Your task to perform on an android device: all mails in gmail Image 0: 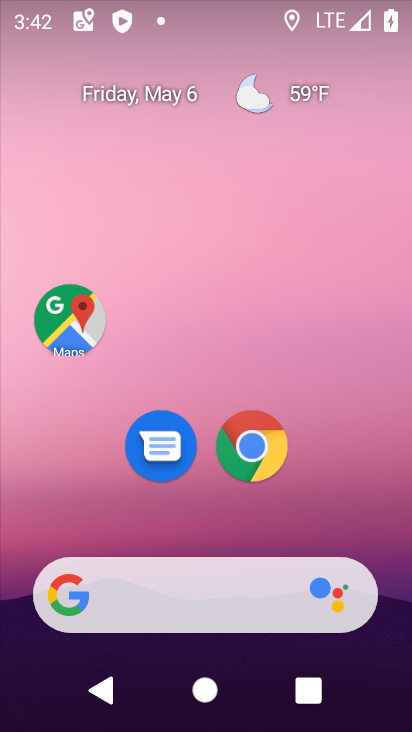
Step 0: drag from (332, 521) to (334, 236)
Your task to perform on an android device: all mails in gmail Image 1: 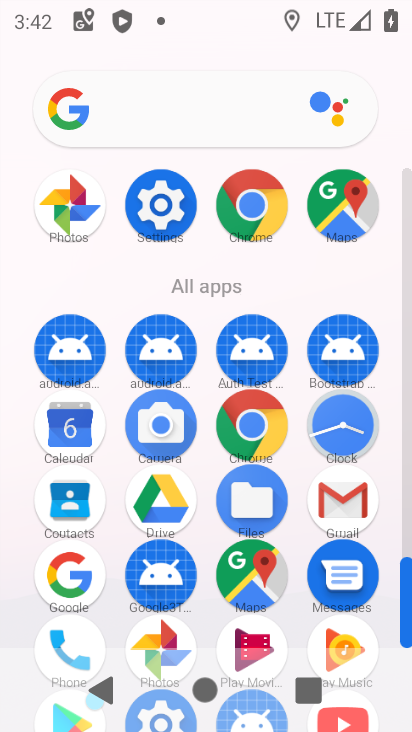
Step 1: click (336, 480)
Your task to perform on an android device: all mails in gmail Image 2: 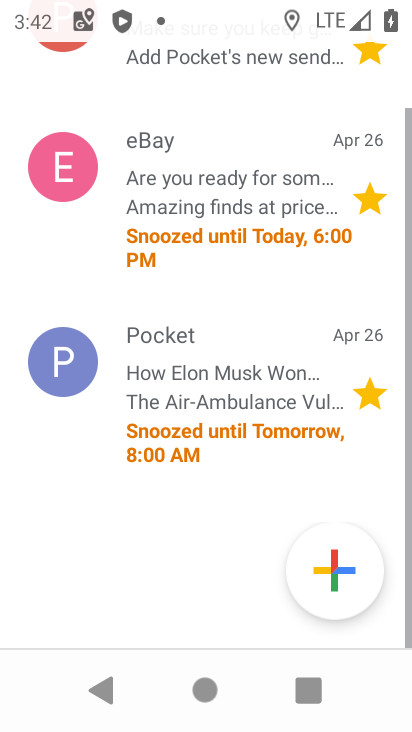
Step 2: drag from (232, 144) to (239, 465)
Your task to perform on an android device: all mails in gmail Image 3: 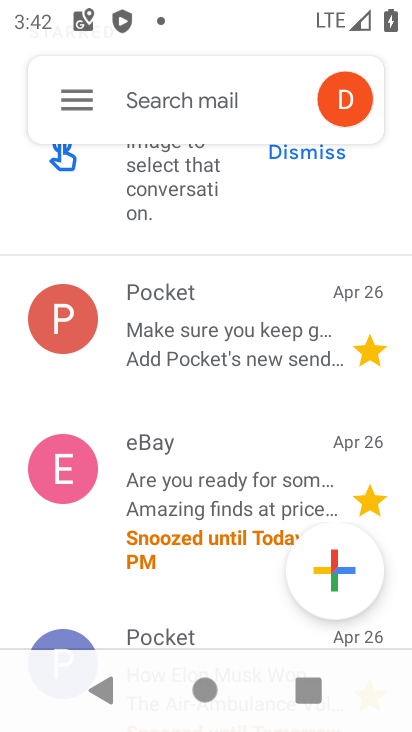
Step 3: click (71, 107)
Your task to perform on an android device: all mails in gmail Image 4: 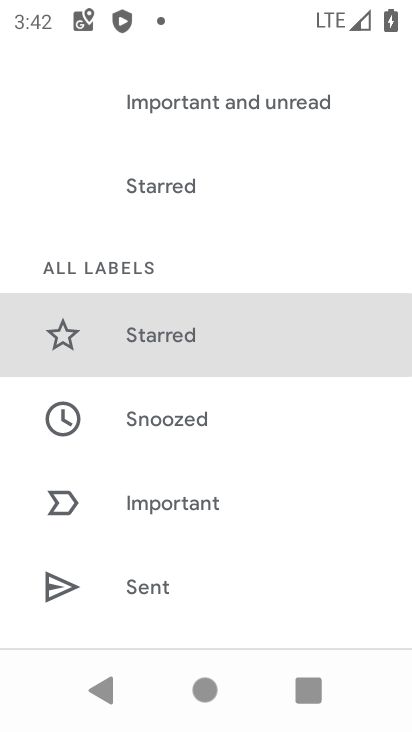
Step 4: drag from (202, 562) to (183, 179)
Your task to perform on an android device: all mails in gmail Image 5: 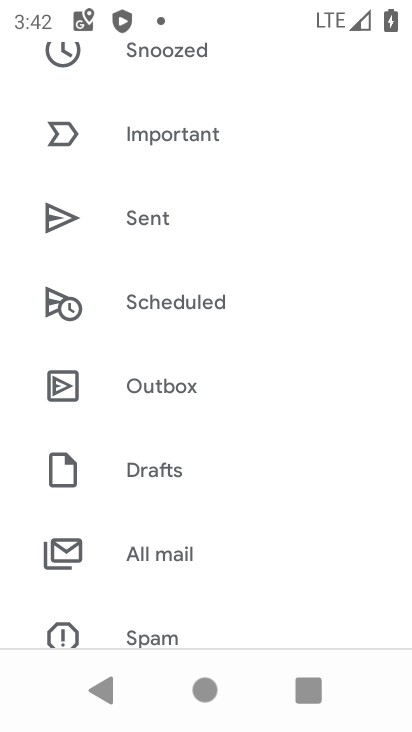
Step 5: click (166, 563)
Your task to perform on an android device: all mails in gmail Image 6: 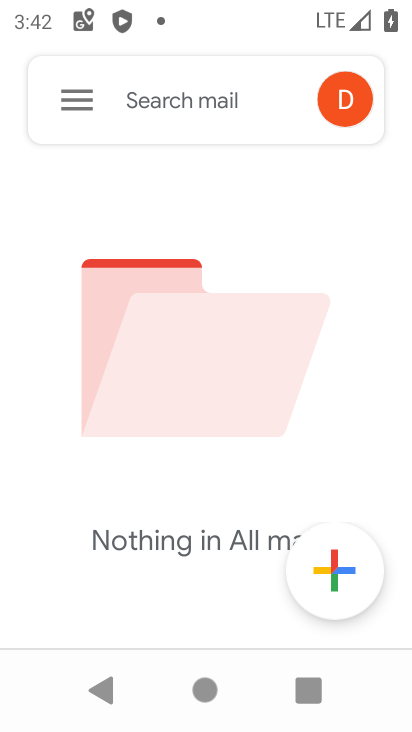
Step 6: task complete